Your task to perform on an android device: Clear all items from cart on bestbuy. Add "dell xps" to the cart on bestbuy Image 0: 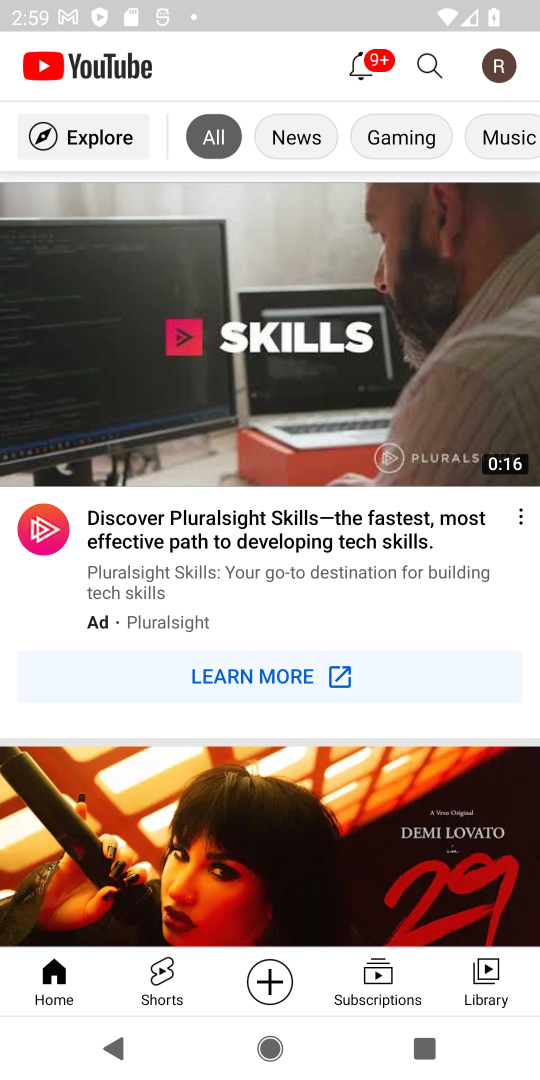
Step 0: press home button
Your task to perform on an android device: Clear all items from cart on bestbuy. Add "dell xps" to the cart on bestbuy Image 1: 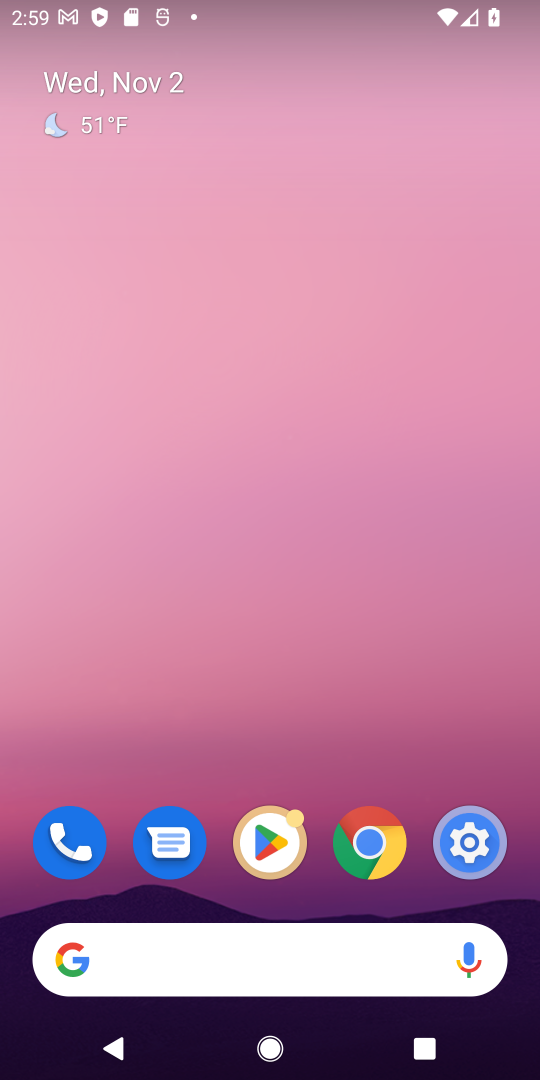
Step 1: click (157, 959)
Your task to perform on an android device: Clear all items from cart on bestbuy. Add "dell xps" to the cart on bestbuy Image 2: 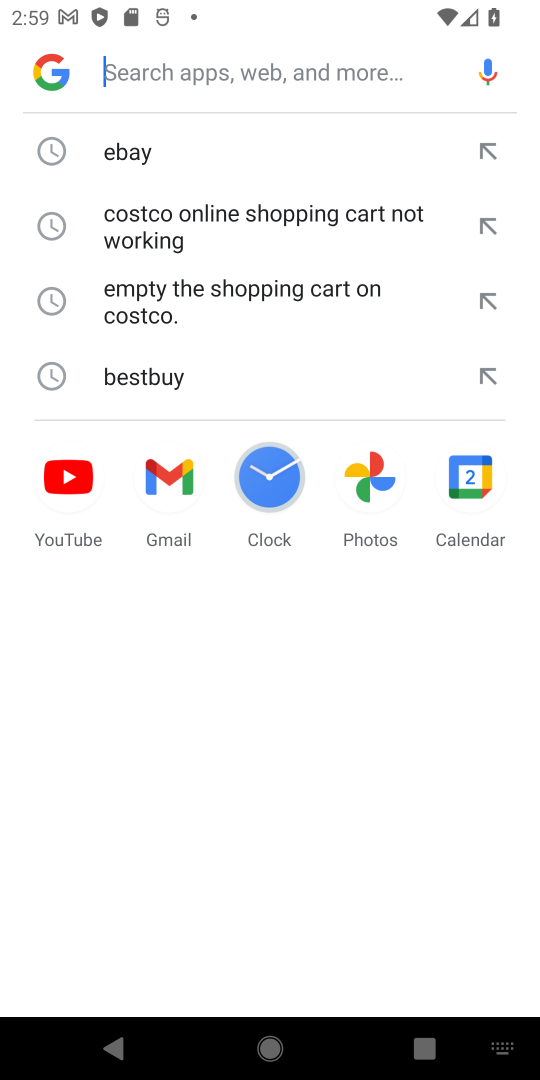
Step 2: click (156, 376)
Your task to perform on an android device: Clear all items from cart on bestbuy. Add "dell xps" to the cart on bestbuy Image 3: 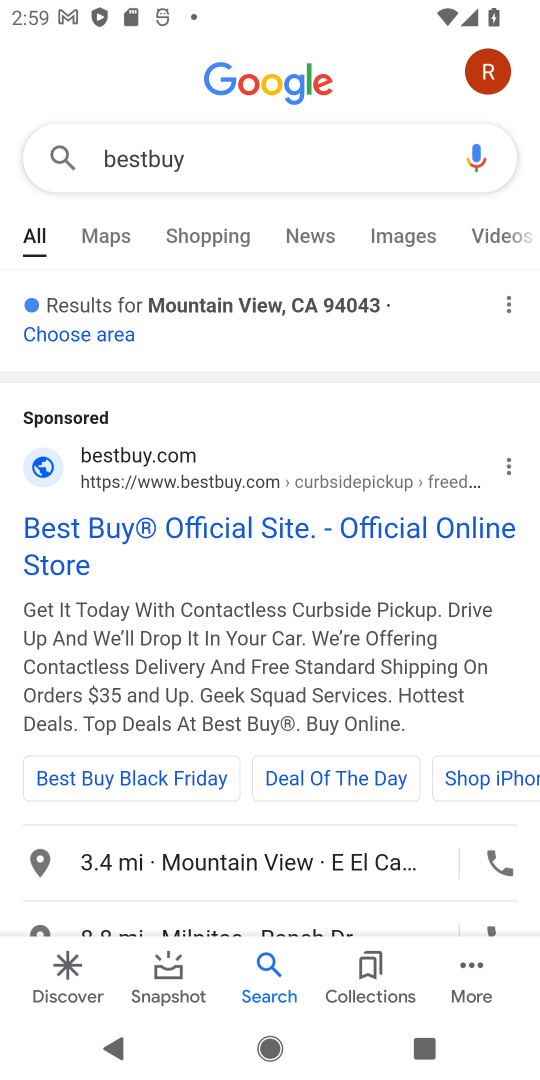
Step 3: drag from (486, 715) to (396, 366)
Your task to perform on an android device: Clear all items from cart on bestbuy. Add "dell xps" to the cart on bestbuy Image 4: 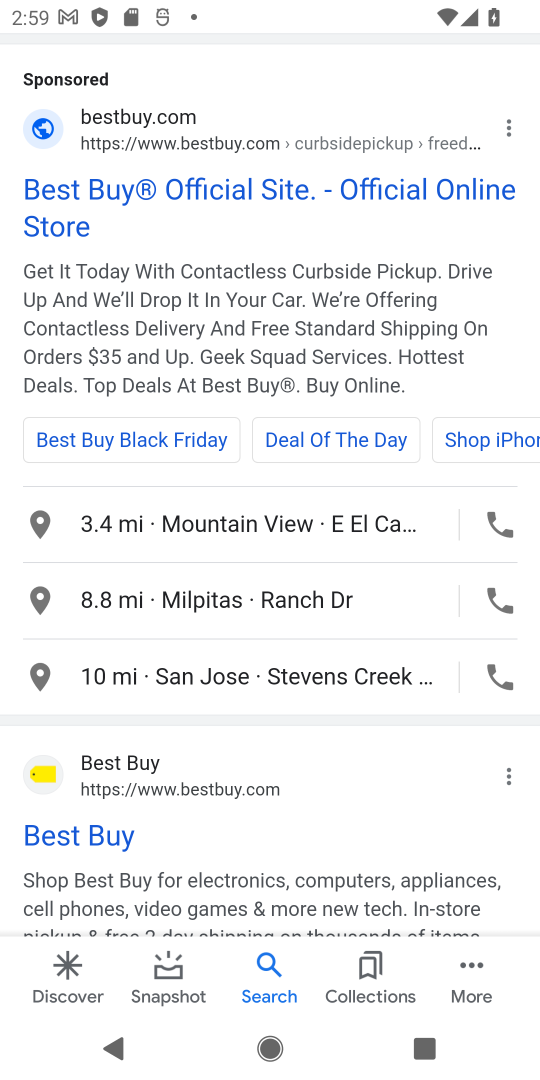
Step 4: click (68, 835)
Your task to perform on an android device: Clear all items from cart on bestbuy. Add "dell xps" to the cart on bestbuy Image 5: 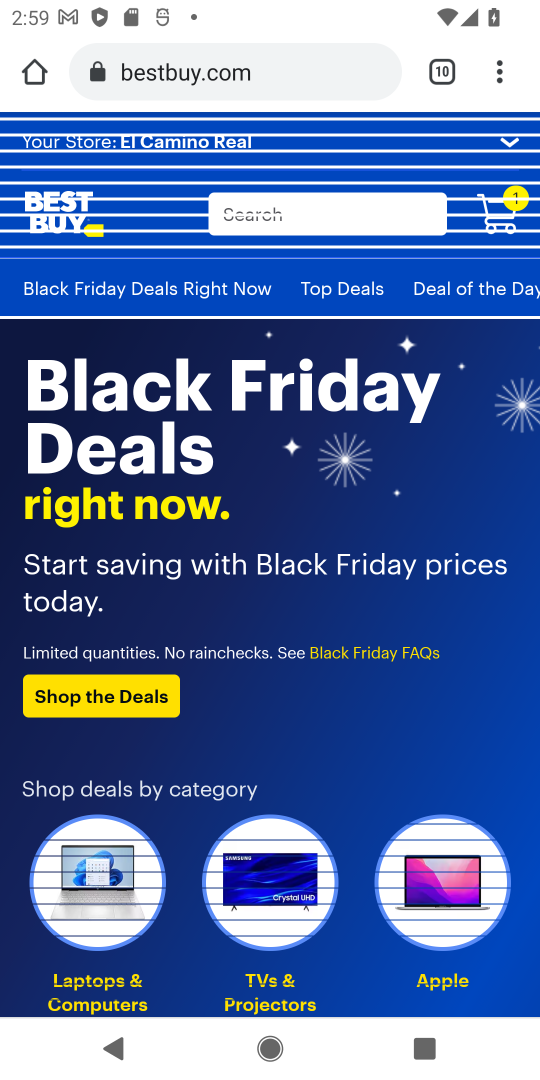
Step 5: click (516, 199)
Your task to perform on an android device: Clear all items from cart on bestbuy. Add "dell xps" to the cart on bestbuy Image 6: 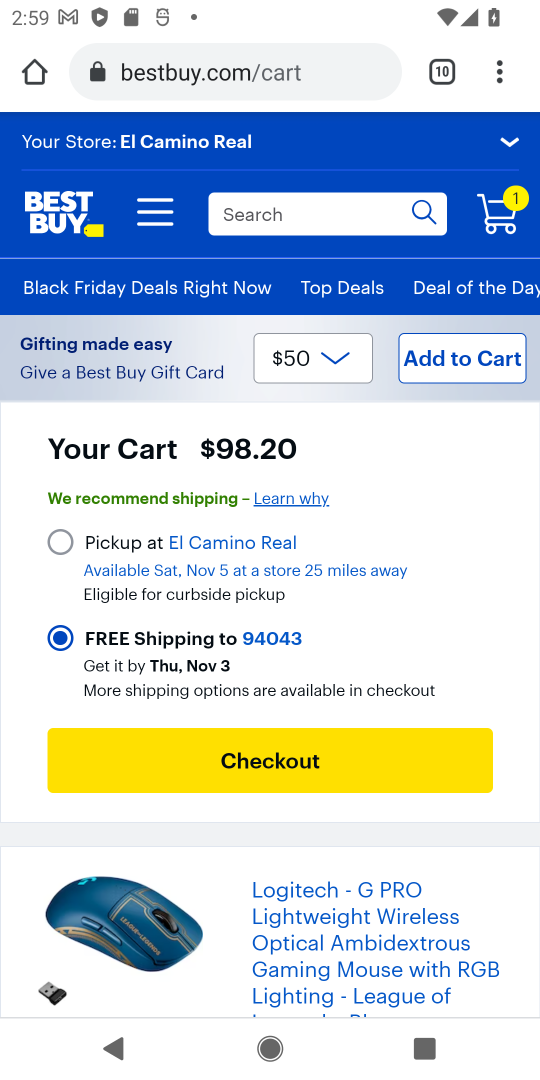
Step 6: drag from (458, 644) to (439, 374)
Your task to perform on an android device: Clear all items from cart on bestbuy. Add "dell xps" to the cart on bestbuy Image 7: 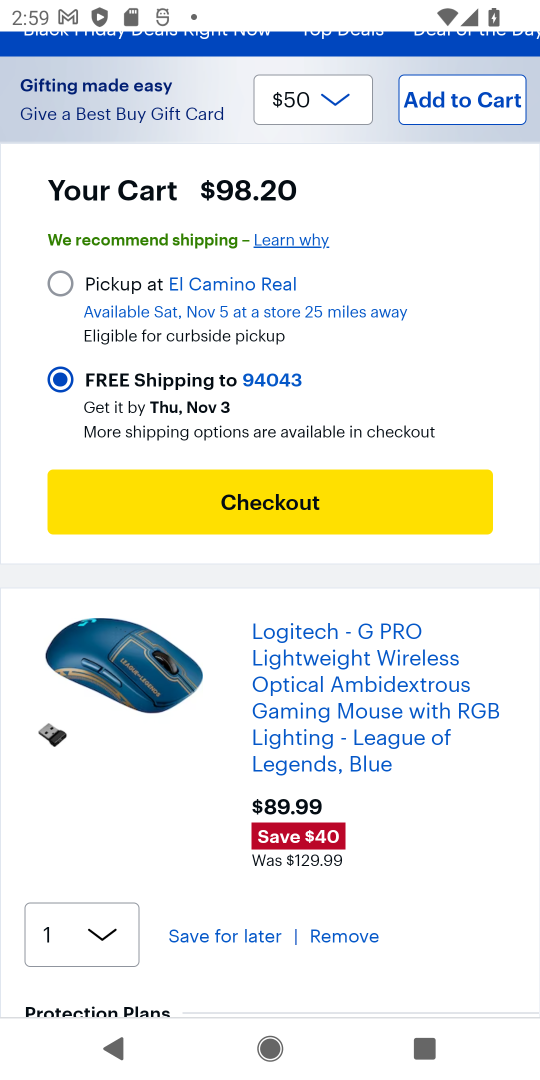
Step 7: drag from (454, 781) to (445, 631)
Your task to perform on an android device: Clear all items from cart on bestbuy. Add "dell xps" to the cart on bestbuy Image 8: 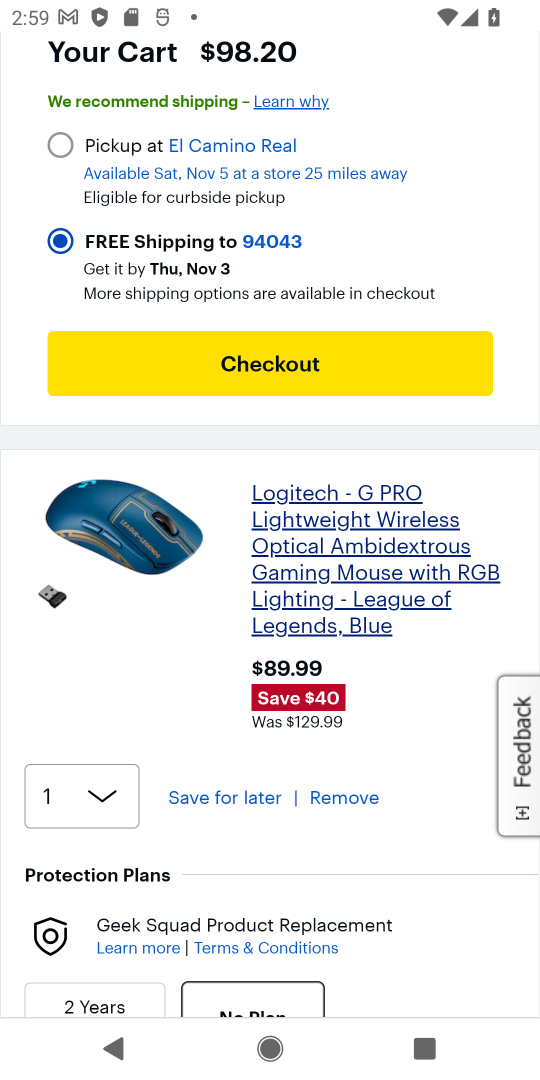
Step 8: click (329, 794)
Your task to perform on an android device: Clear all items from cart on bestbuy. Add "dell xps" to the cart on bestbuy Image 9: 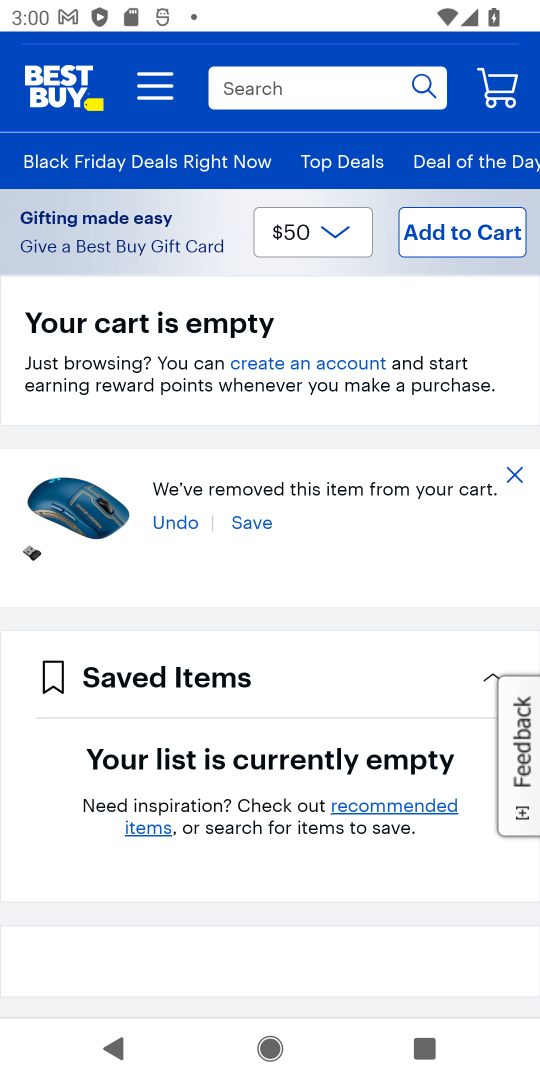
Step 9: click (266, 81)
Your task to perform on an android device: Clear all items from cart on bestbuy. Add "dell xps" to the cart on bestbuy Image 10: 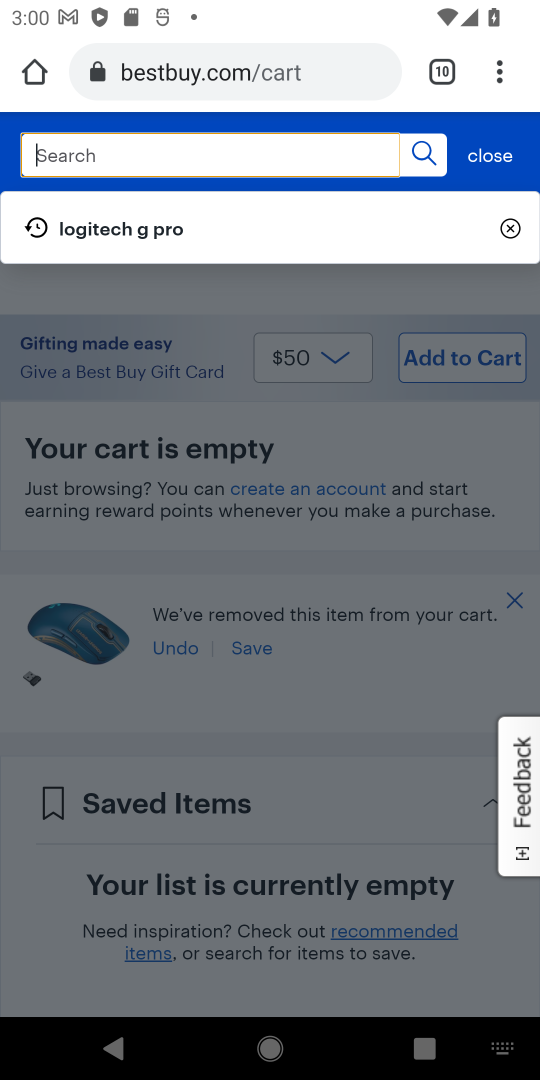
Step 10: type "dell xps"
Your task to perform on an android device: Clear all items from cart on bestbuy. Add "dell xps" to the cart on bestbuy Image 11: 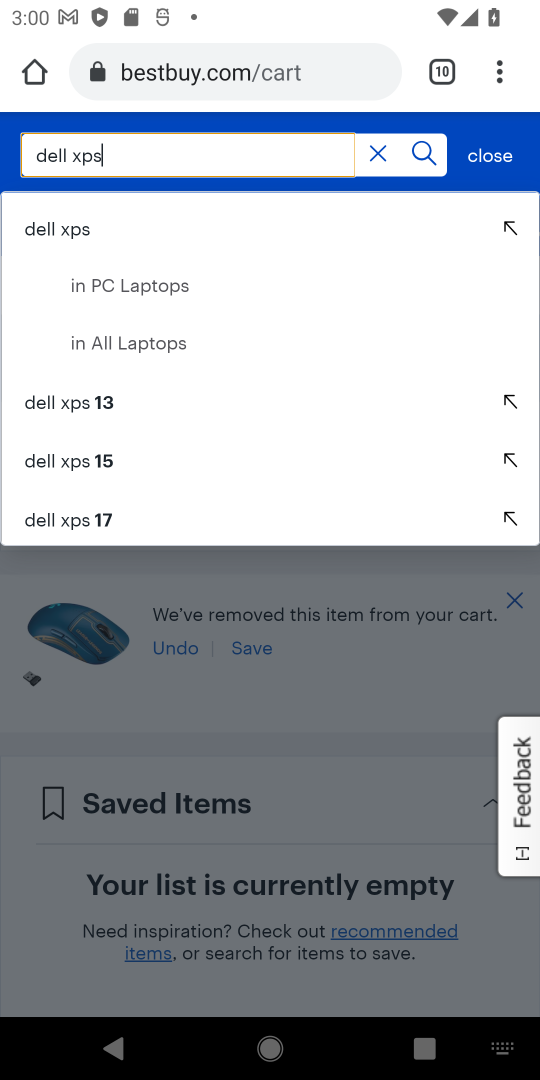
Step 11: click (57, 215)
Your task to perform on an android device: Clear all items from cart on bestbuy. Add "dell xps" to the cart on bestbuy Image 12: 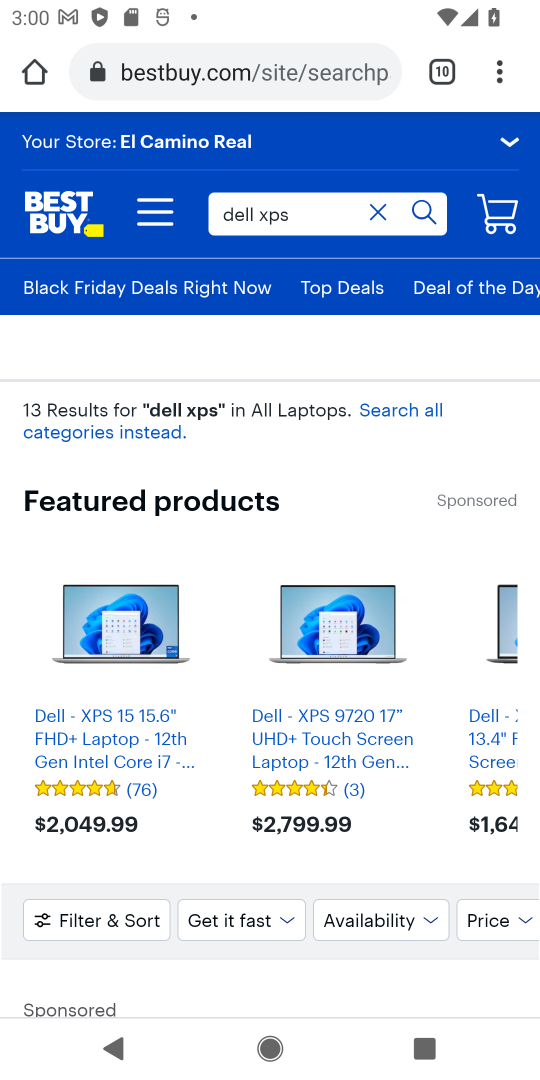
Step 12: drag from (371, 509) to (336, 307)
Your task to perform on an android device: Clear all items from cart on bestbuy. Add "dell xps" to the cart on bestbuy Image 13: 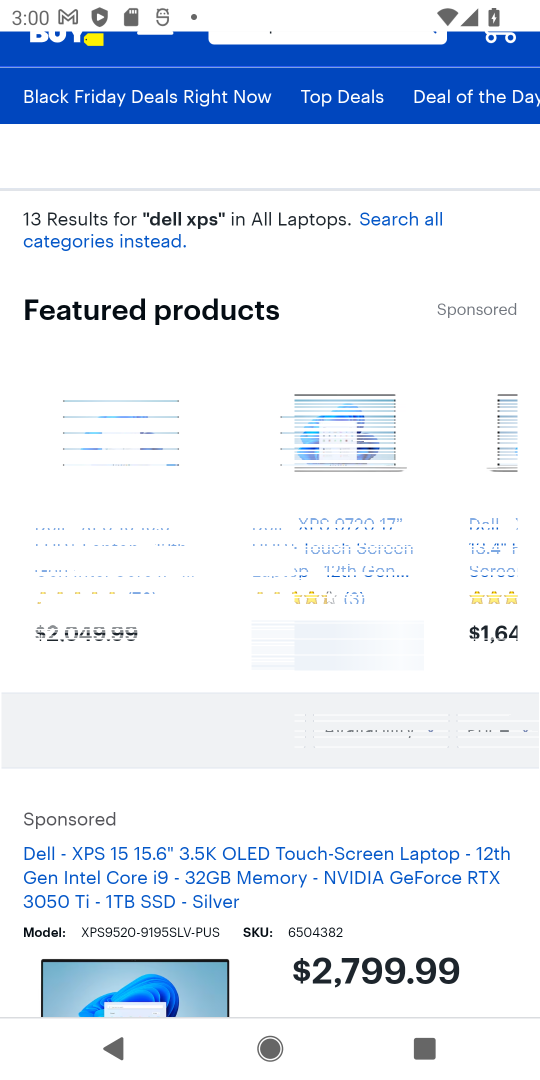
Step 13: drag from (305, 795) to (245, 430)
Your task to perform on an android device: Clear all items from cart on bestbuy. Add "dell xps" to the cart on bestbuy Image 14: 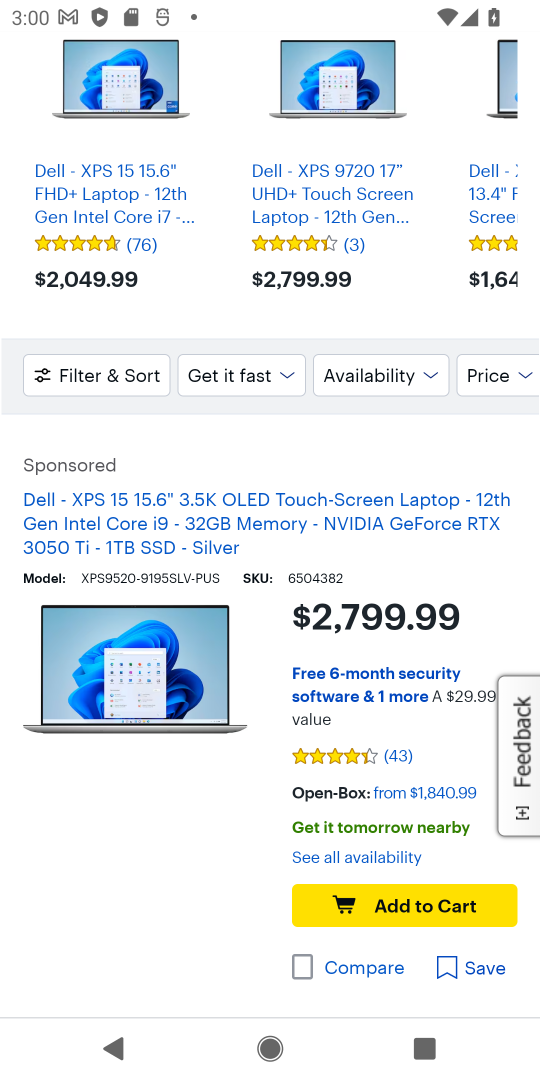
Step 14: click (369, 901)
Your task to perform on an android device: Clear all items from cart on bestbuy. Add "dell xps" to the cart on bestbuy Image 15: 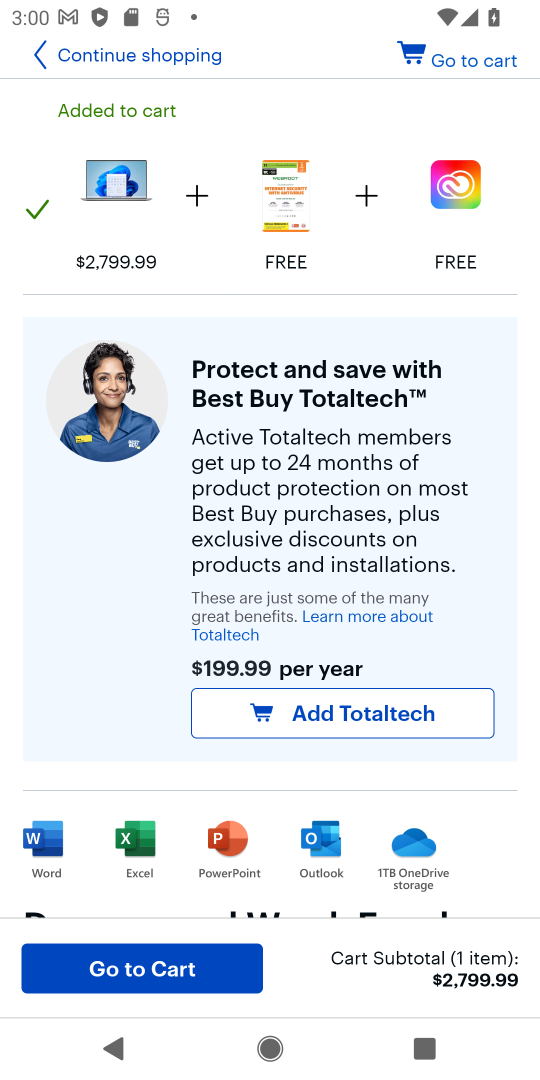
Step 15: task complete